Your task to perform on an android device: Go to accessibility settings Image 0: 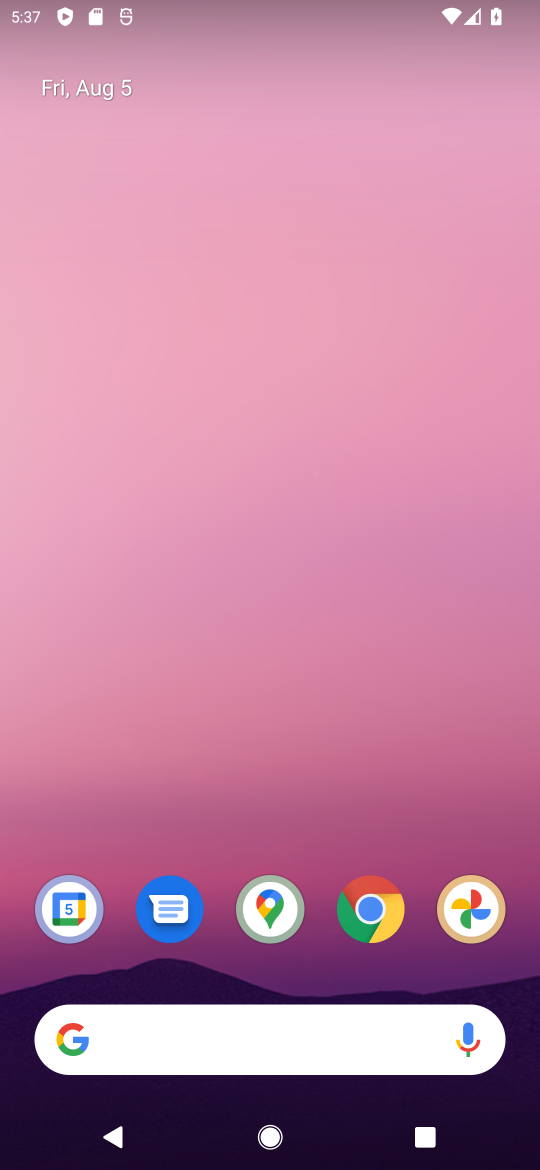
Step 0: press home button
Your task to perform on an android device: Go to accessibility settings Image 1: 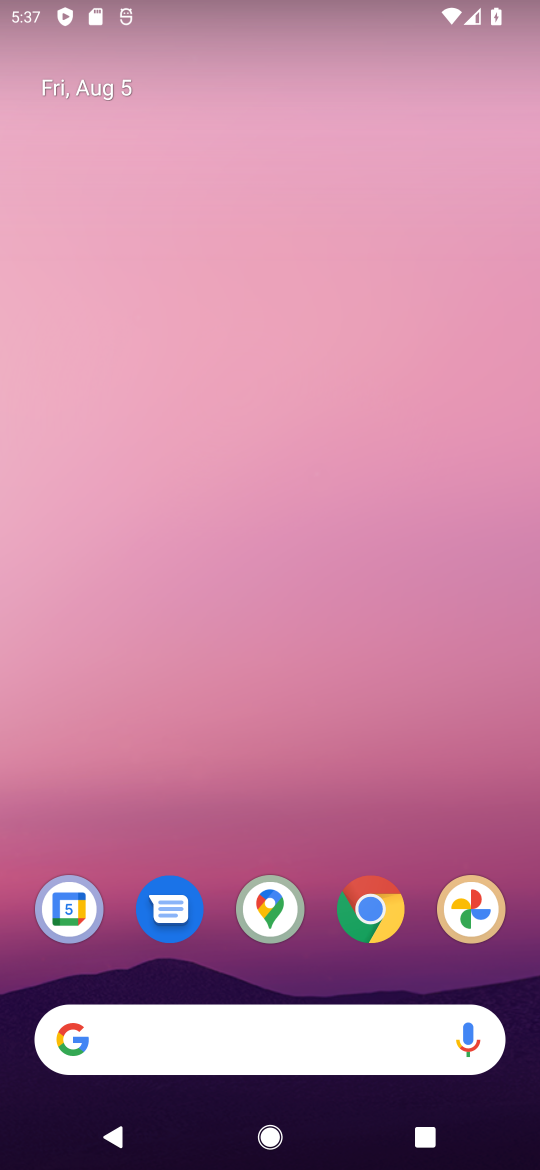
Step 1: drag from (335, 772) to (198, 49)
Your task to perform on an android device: Go to accessibility settings Image 2: 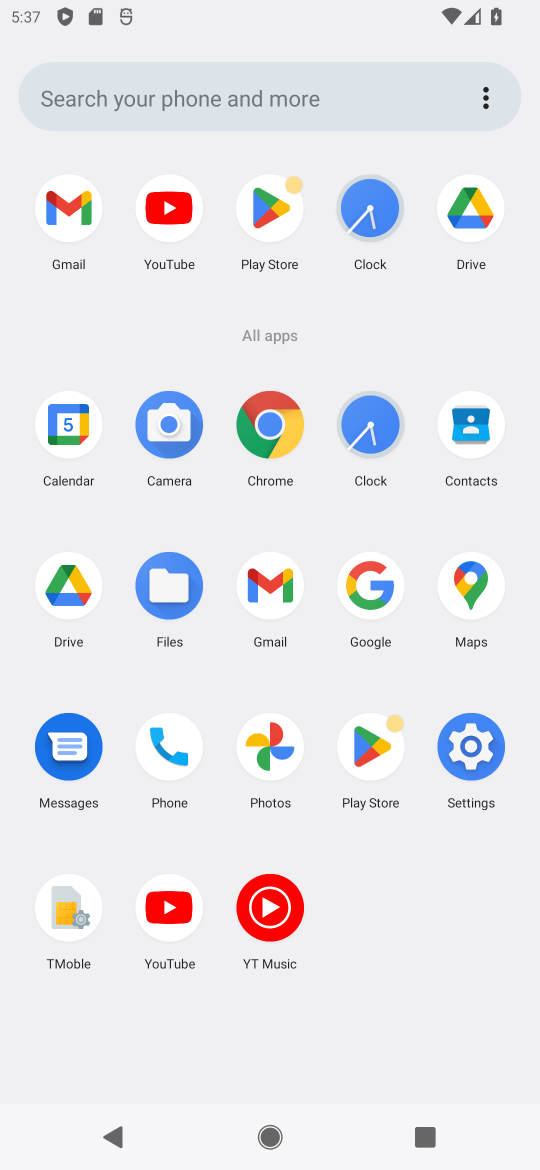
Step 2: click (467, 743)
Your task to perform on an android device: Go to accessibility settings Image 3: 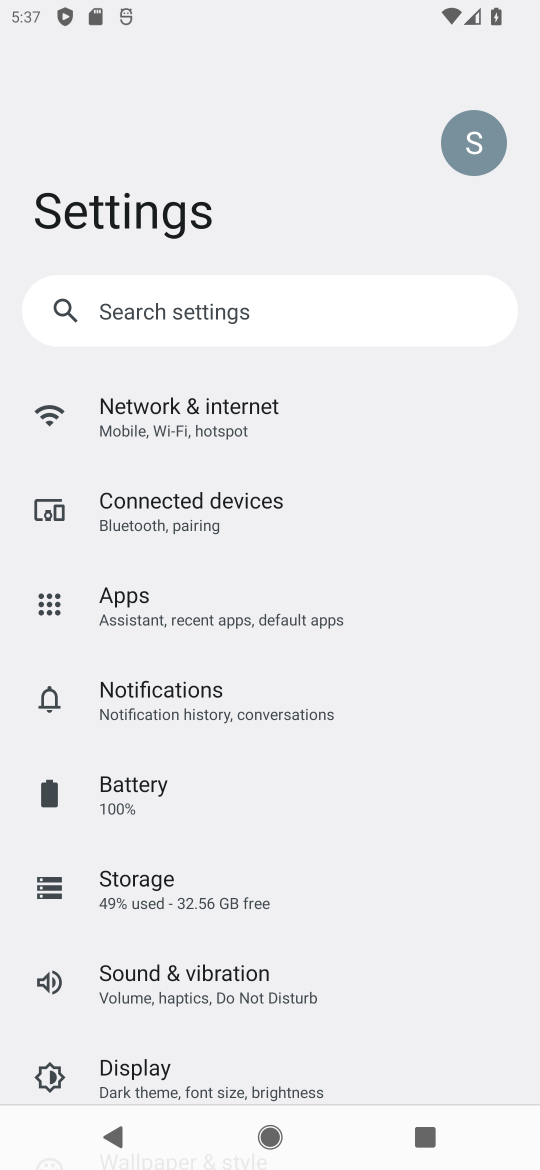
Step 3: drag from (246, 949) to (228, 552)
Your task to perform on an android device: Go to accessibility settings Image 4: 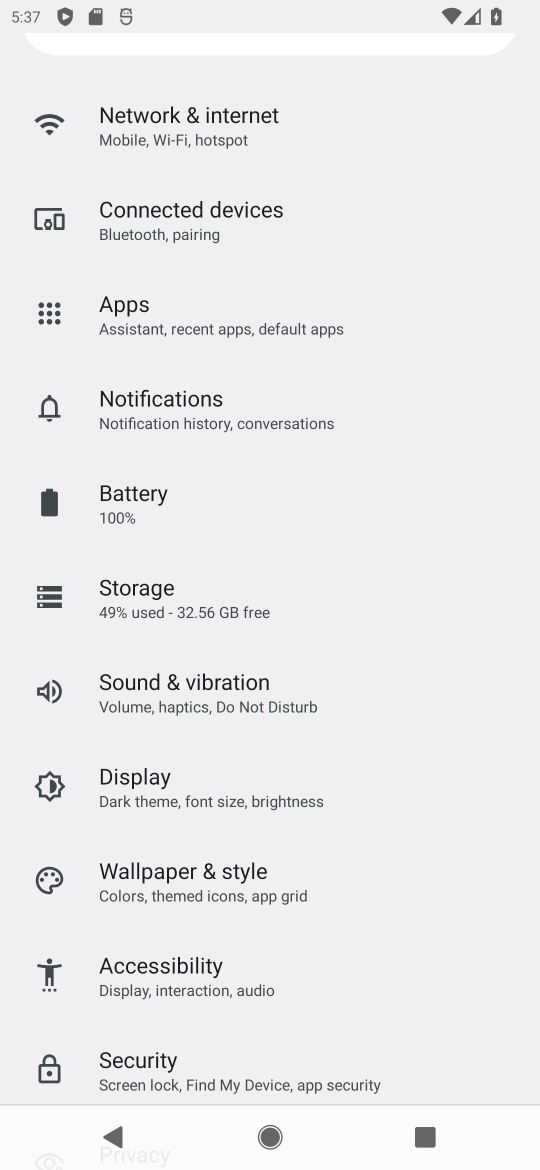
Step 4: click (150, 972)
Your task to perform on an android device: Go to accessibility settings Image 5: 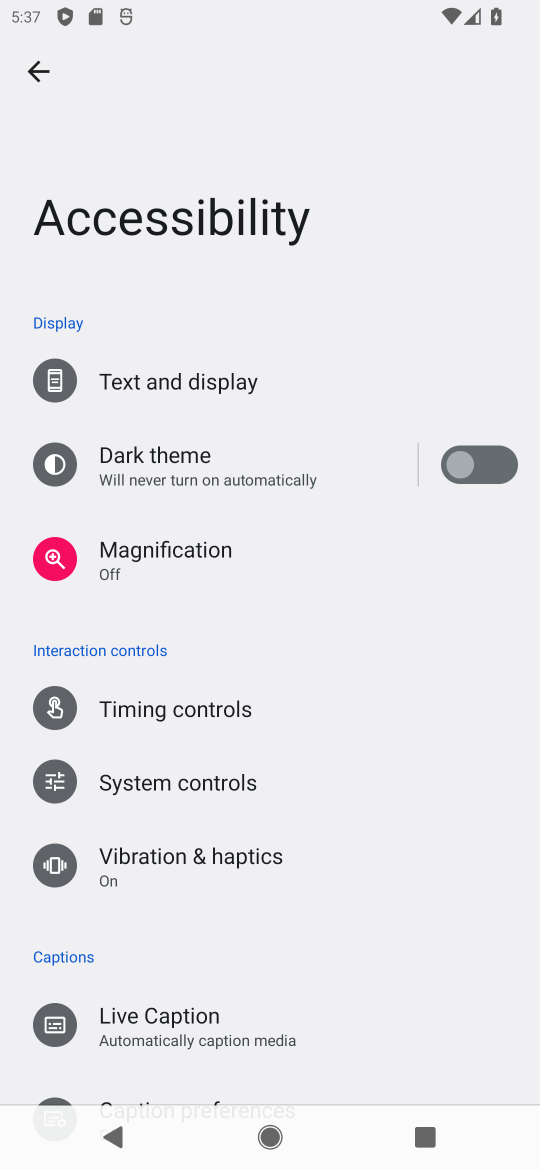
Step 5: task complete